Your task to perform on an android device: turn on the 12-hour format for clock Image 0: 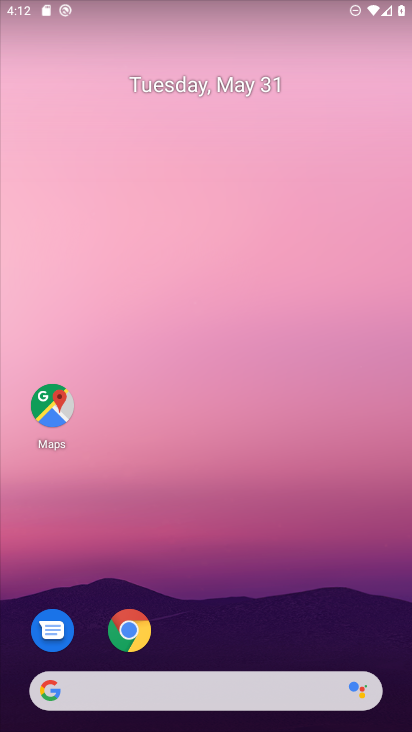
Step 0: drag from (217, 527) to (282, 193)
Your task to perform on an android device: turn on the 12-hour format for clock Image 1: 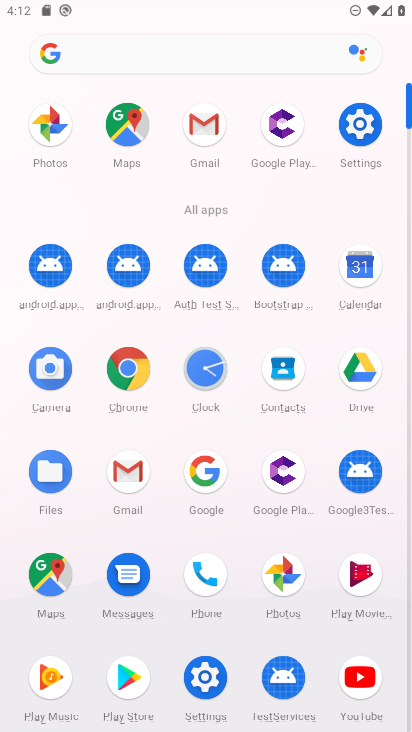
Step 1: click (202, 370)
Your task to perform on an android device: turn on the 12-hour format for clock Image 2: 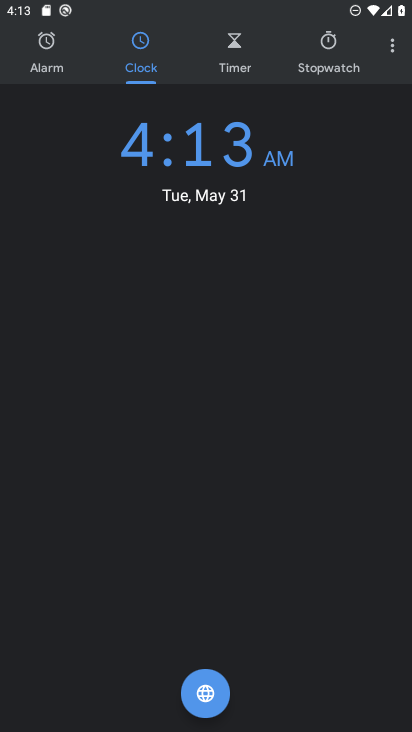
Step 2: click (399, 45)
Your task to perform on an android device: turn on the 12-hour format for clock Image 3: 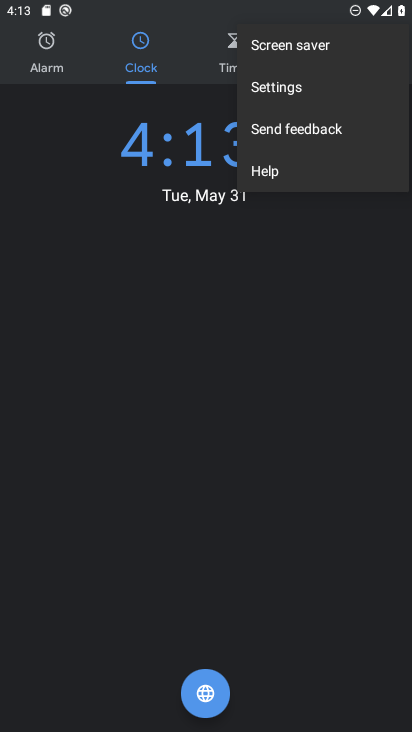
Step 3: click (343, 83)
Your task to perform on an android device: turn on the 12-hour format for clock Image 4: 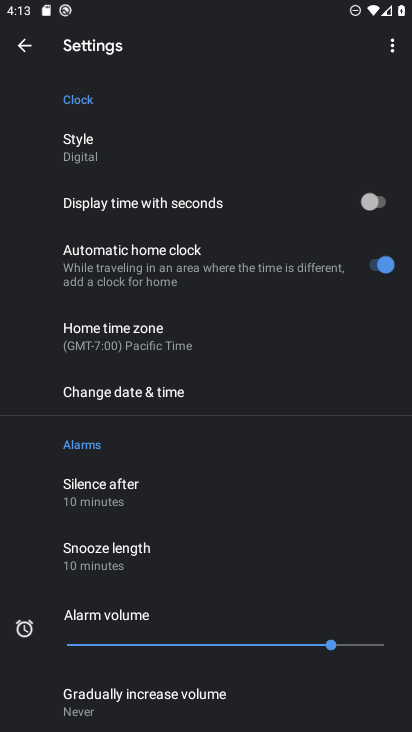
Step 4: click (244, 394)
Your task to perform on an android device: turn on the 12-hour format for clock Image 5: 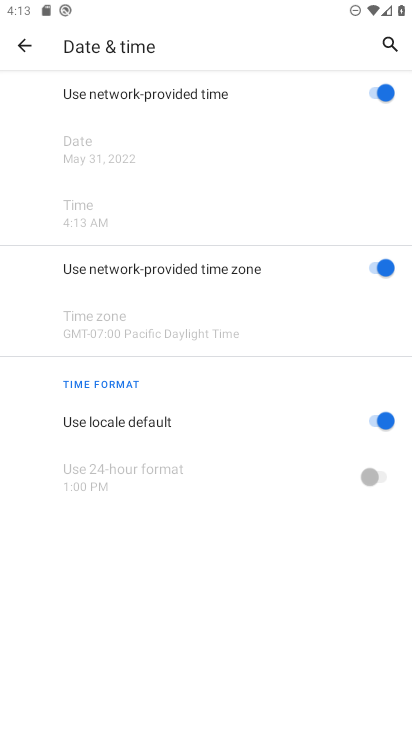
Step 5: task complete